Your task to perform on an android device: Open my contact list Image 0: 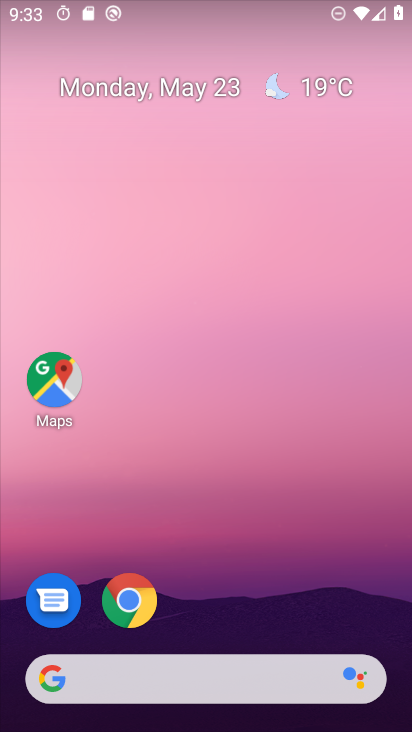
Step 0: drag from (10, 645) to (245, 188)
Your task to perform on an android device: Open my contact list Image 1: 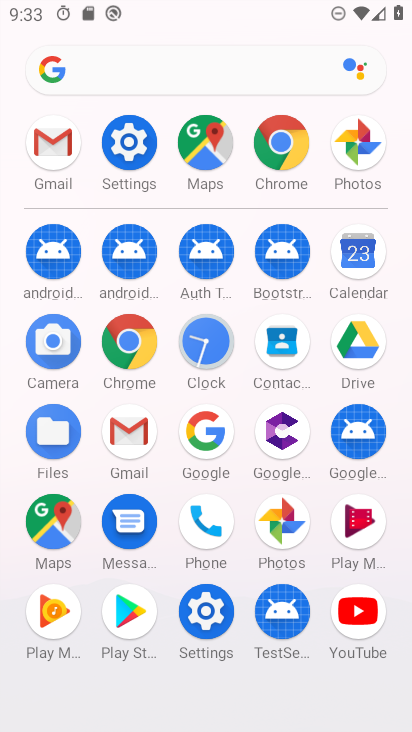
Step 1: click (217, 533)
Your task to perform on an android device: Open my contact list Image 2: 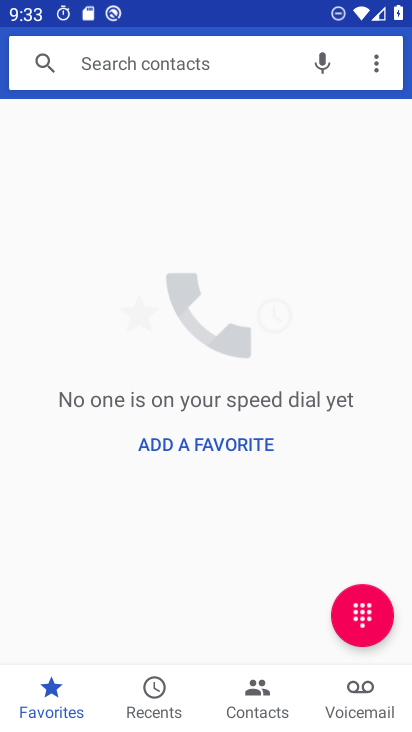
Step 2: click (268, 698)
Your task to perform on an android device: Open my contact list Image 3: 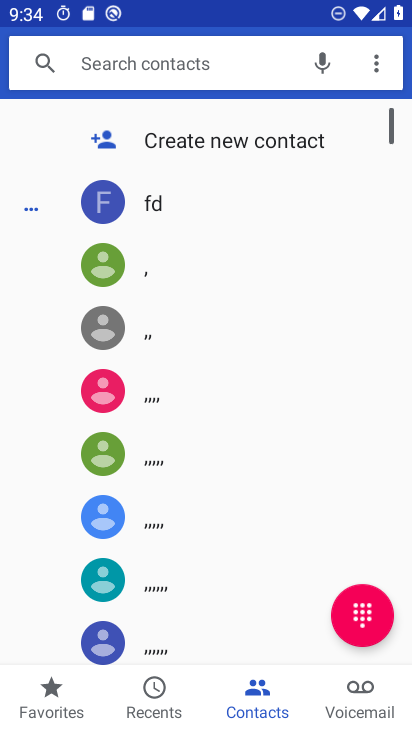
Step 3: task complete